Your task to perform on an android device: Open Google Chrome Image 0: 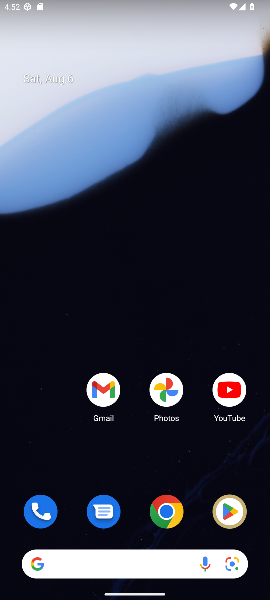
Step 0: click (146, 518)
Your task to perform on an android device: Open Google Chrome Image 1: 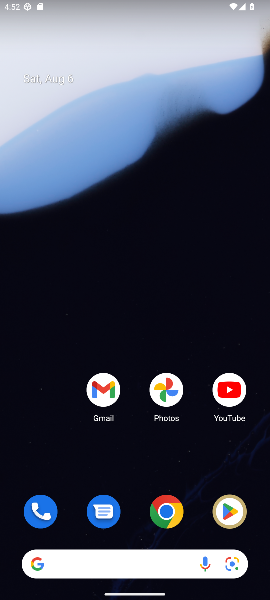
Step 1: click (175, 516)
Your task to perform on an android device: Open Google Chrome Image 2: 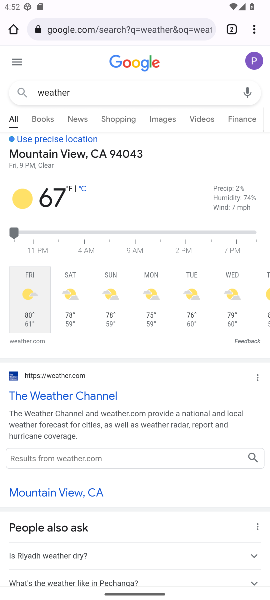
Step 2: task complete